Your task to perform on an android device: turn on sleep mode Image 0: 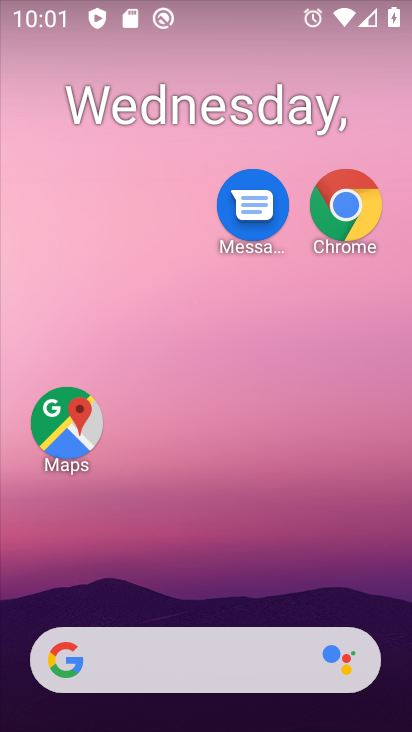
Step 0: click (311, 73)
Your task to perform on an android device: turn on sleep mode Image 1: 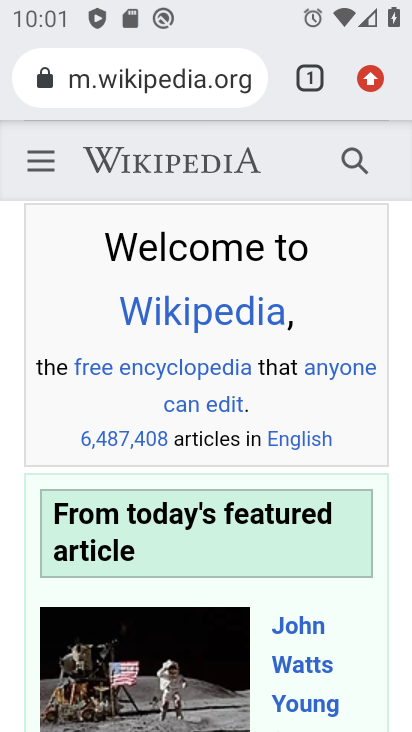
Step 1: click (304, 70)
Your task to perform on an android device: turn on sleep mode Image 2: 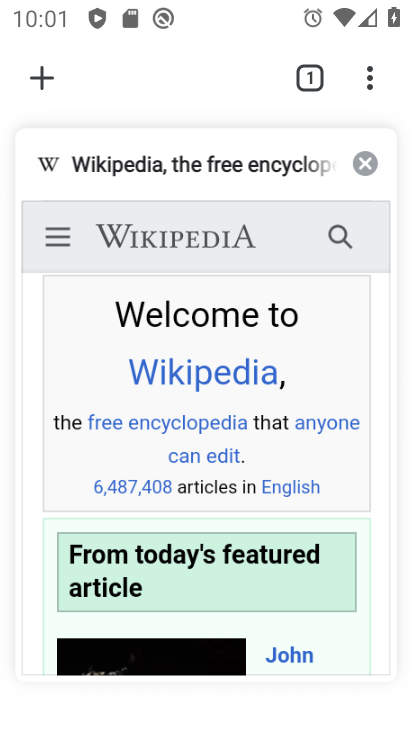
Step 2: press home button
Your task to perform on an android device: turn on sleep mode Image 3: 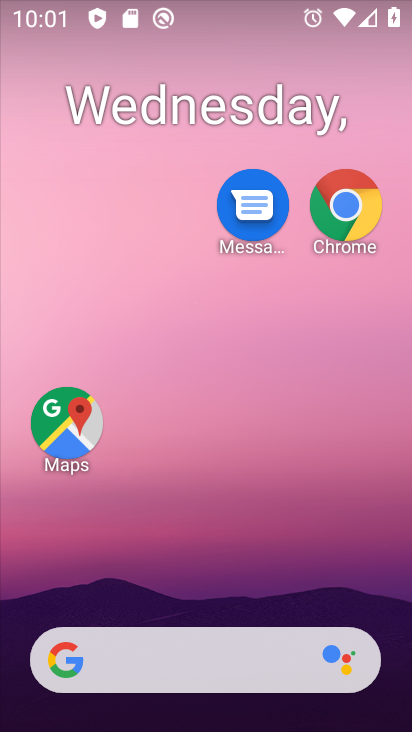
Step 3: drag from (233, 400) to (230, 30)
Your task to perform on an android device: turn on sleep mode Image 4: 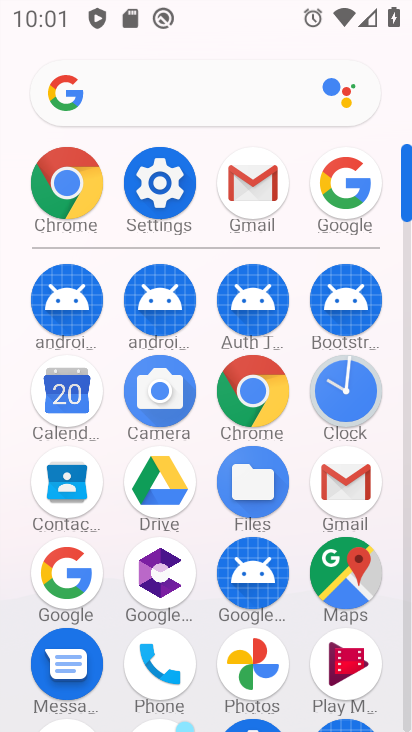
Step 4: click (153, 169)
Your task to perform on an android device: turn on sleep mode Image 5: 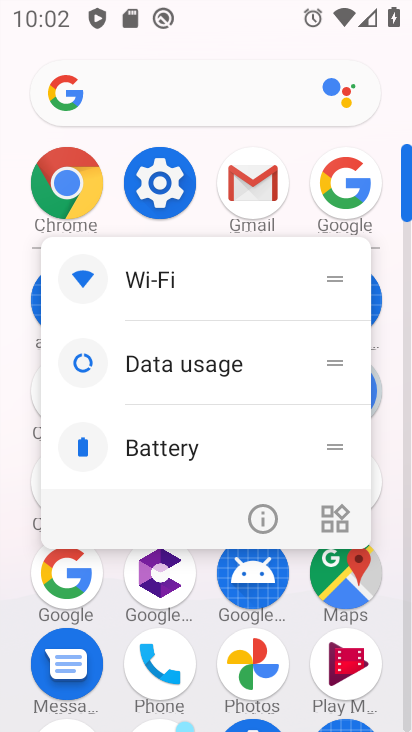
Step 5: click (267, 526)
Your task to perform on an android device: turn on sleep mode Image 6: 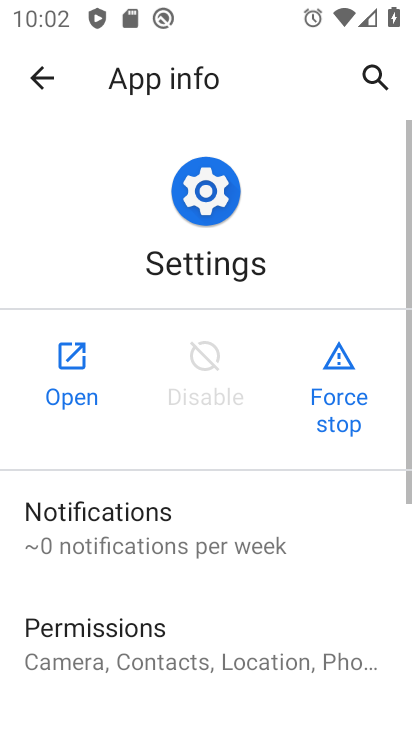
Step 6: click (75, 360)
Your task to perform on an android device: turn on sleep mode Image 7: 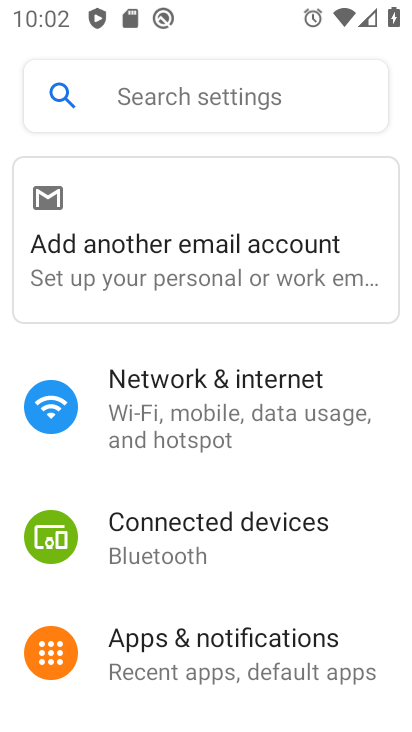
Step 7: drag from (223, 608) to (326, 125)
Your task to perform on an android device: turn on sleep mode Image 8: 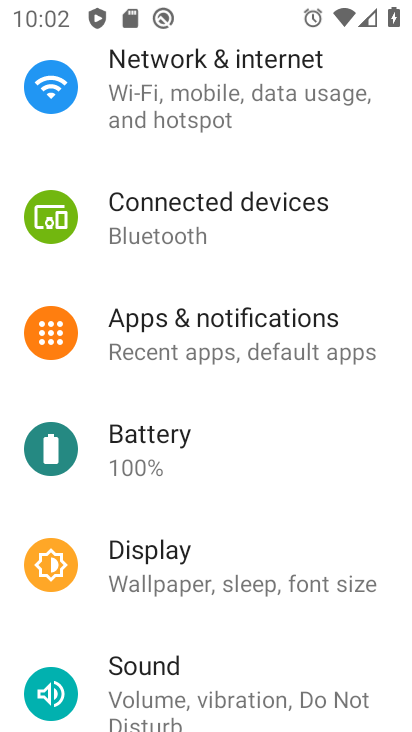
Step 8: click (192, 572)
Your task to perform on an android device: turn on sleep mode Image 9: 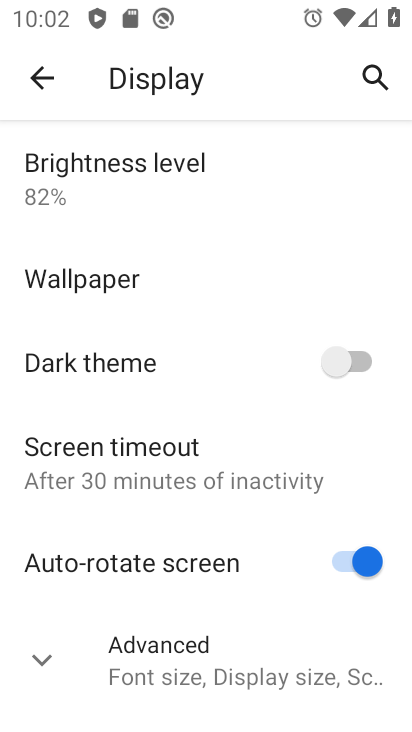
Step 9: drag from (222, 609) to (290, 217)
Your task to perform on an android device: turn on sleep mode Image 10: 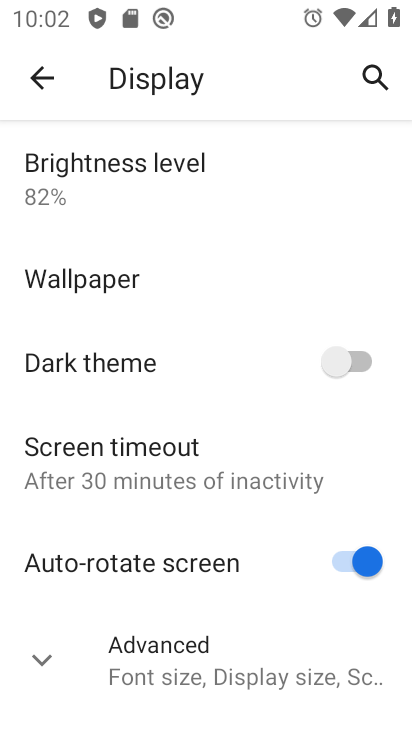
Step 10: click (222, 443)
Your task to perform on an android device: turn on sleep mode Image 11: 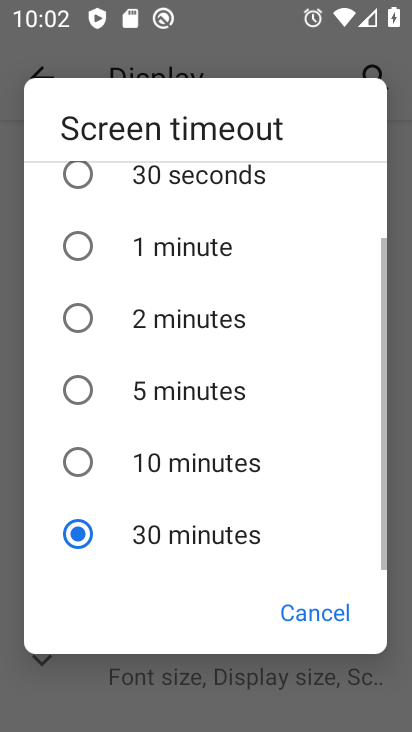
Step 11: task complete